Your task to perform on an android device: find snoozed emails in the gmail app Image 0: 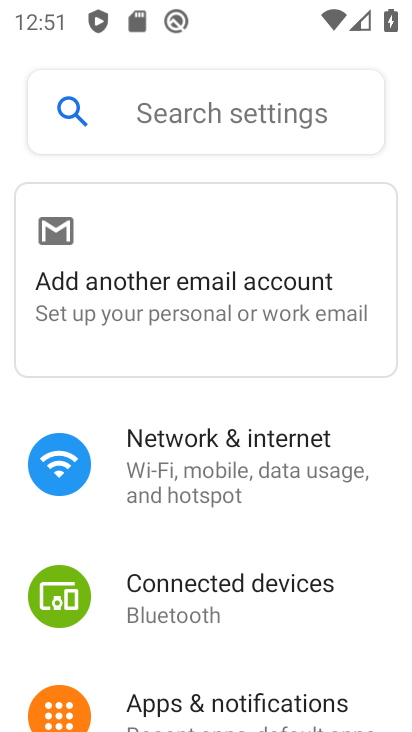
Step 0: press home button
Your task to perform on an android device: find snoozed emails in the gmail app Image 1: 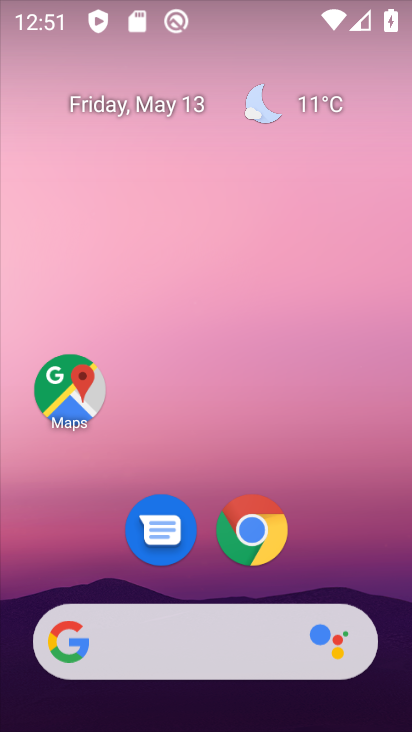
Step 1: drag from (184, 496) to (193, 129)
Your task to perform on an android device: find snoozed emails in the gmail app Image 2: 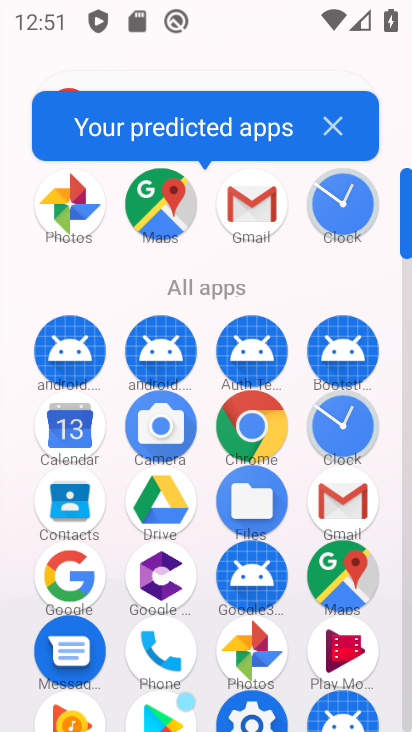
Step 2: click (333, 132)
Your task to perform on an android device: find snoozed emails in the gmail app Image 3: 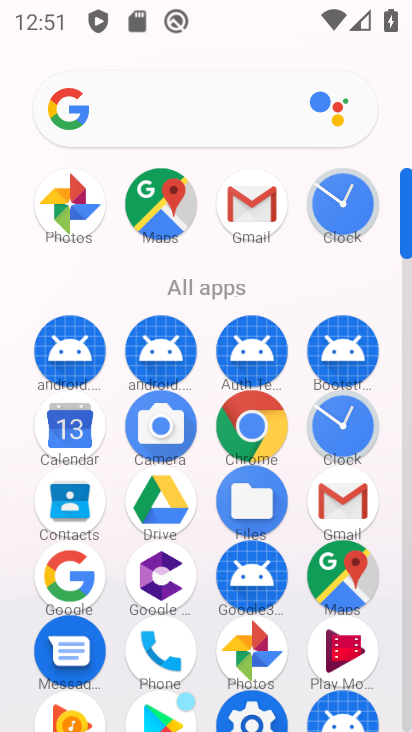
Step 3: click (344, 506)
Your task to perform on an android device: find snoozed emails in the gmail app Image 4: 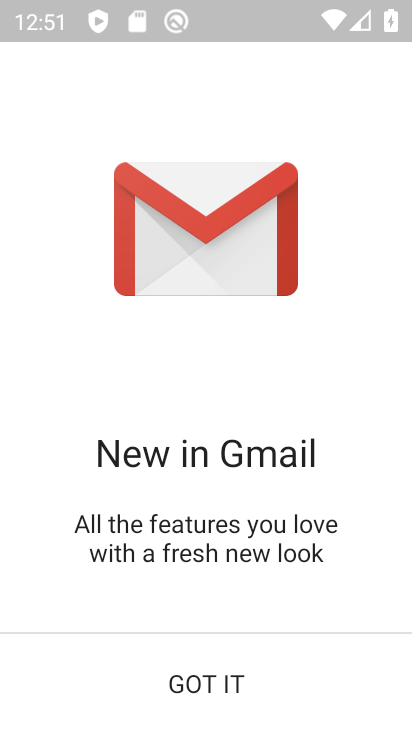
Step 4: click (236, 675)
Your task to perform on an android device: find snoozed emails in the gmail app Image 5: 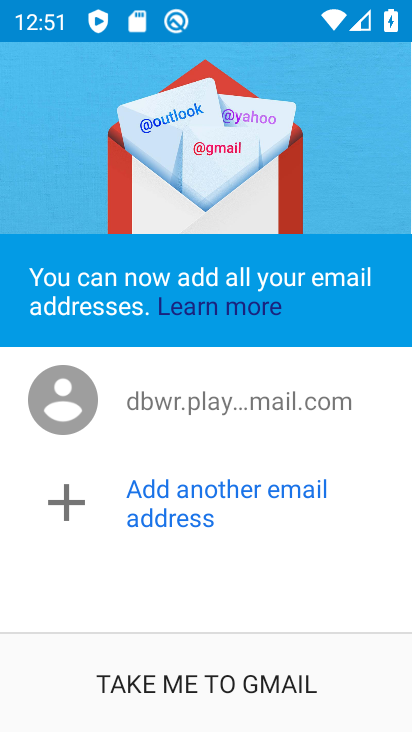
Step 5: click (236, 675)
Your task to perform on an android device: find snoozed emails in the gmail app Image 6: 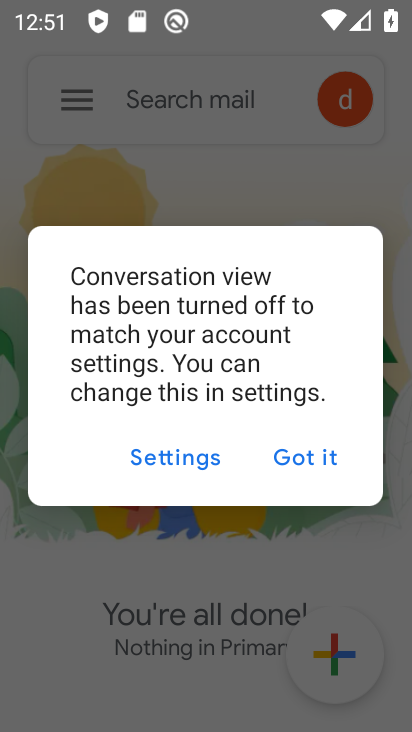
Step 6: click (313, 452)
Your task to perform on an android device: find snoozed emails in the gmail app Image 7: 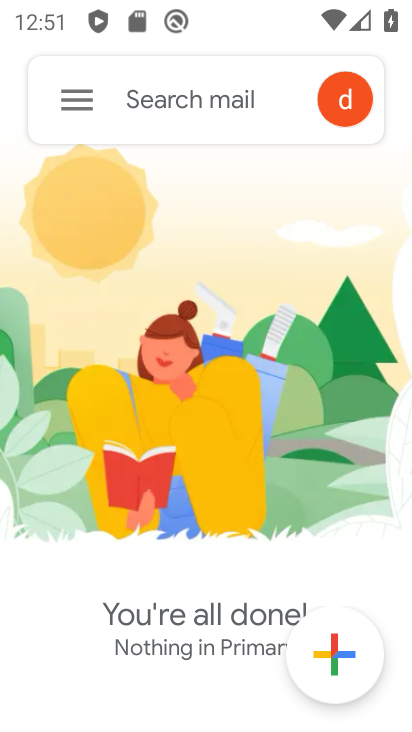
Step 7: click (63, 114)
Your task to perform on an android device: find snoozed emails in the gmail app Image 8: 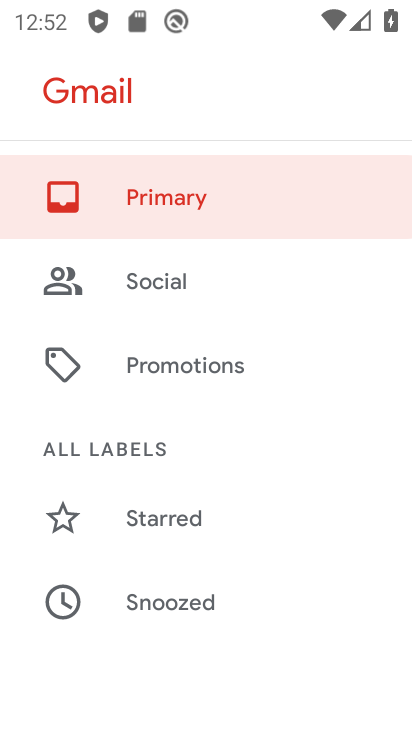
Step 8: click (189, 612)
Your task to perform on an android device: find snoozed emails in the gmail app Image 9: 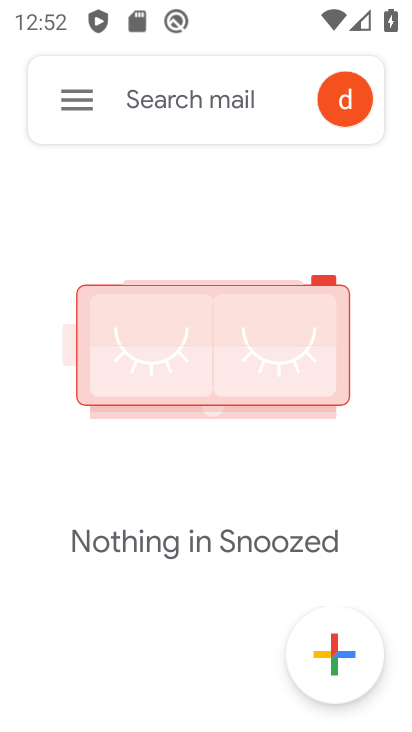
Step 9: task complete